Your task to perform on an android device: Go to accessibility settings Image 0: 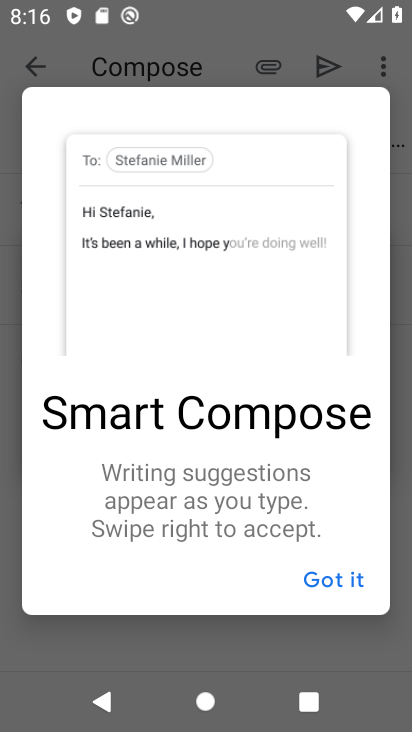
Step 0: press home button
Your task to perform on an android device: Go to accessibility settings Image 1: 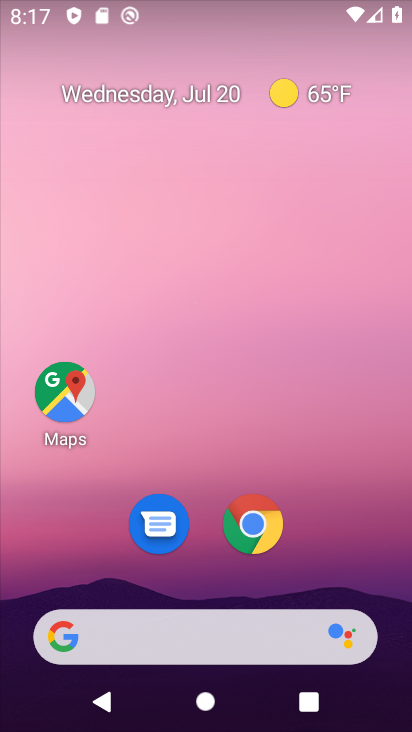
Step 1: drag from (338, 525) to (351, 43)
Your task to perform on an android device: Go to accessibility settings Image 2: 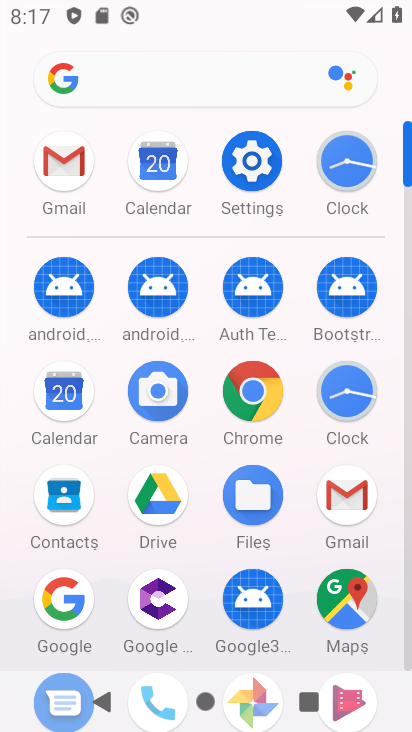
Step 2: click (248, 160)
Your task to perform on an android device: Go to accessibility settings Image 3: 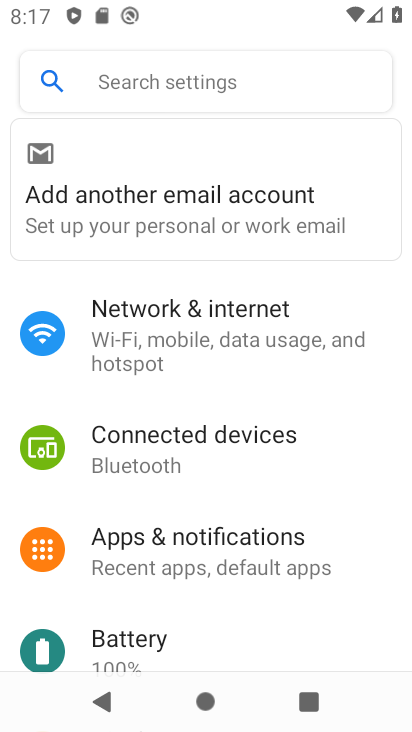
Step 3: drag from (220, 497) to (261, 30)
Your task to perform on an android device: Go to accessibility settings Image 4: 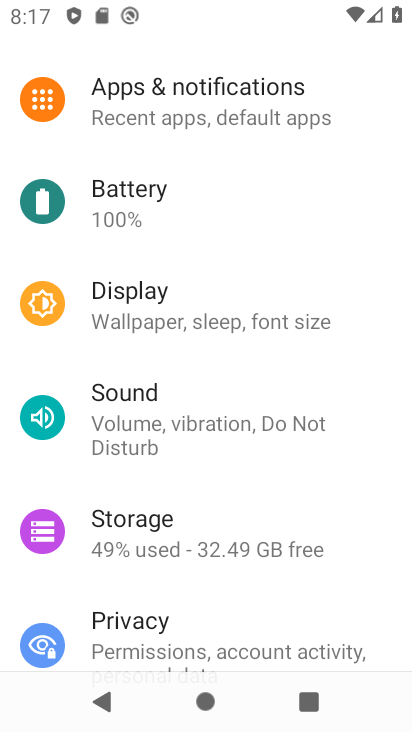
Step 4: drag from (188, 488) to (241, 41)
Your task to perform on an android device: Go to accessibility settings Image 5: 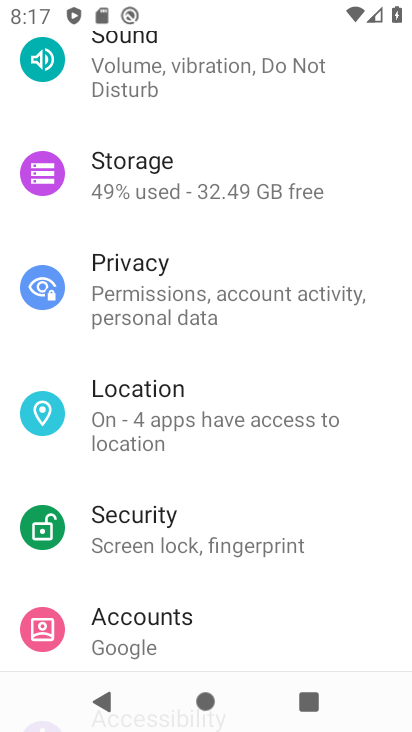
Step 5: drag from (201, 486) to (250, 0)
Your task to perform on an android device: Go to accessibility settings Image 6: 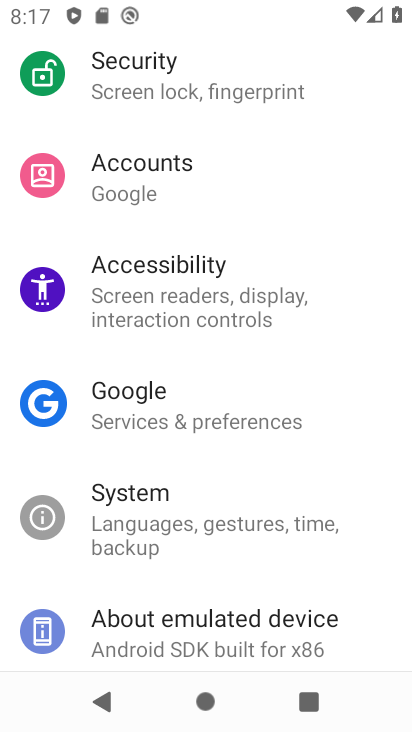
Step 6: click (181, 288)
Your task to perform on an android device: Go to accessibility settings Image 7: 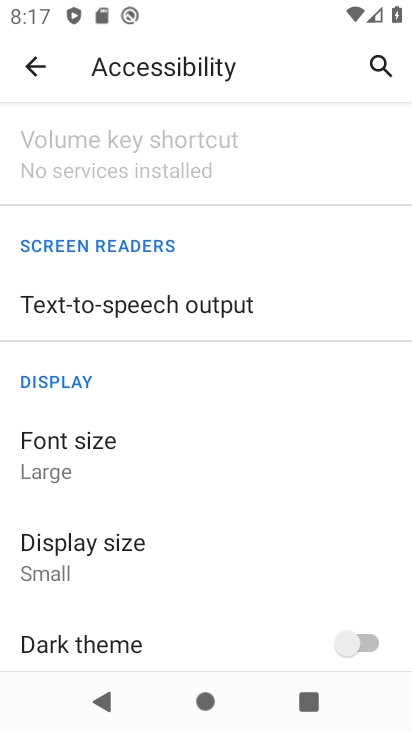
Step 7: task complete